Your task to perform on an android device: Open battery settings Image 0: 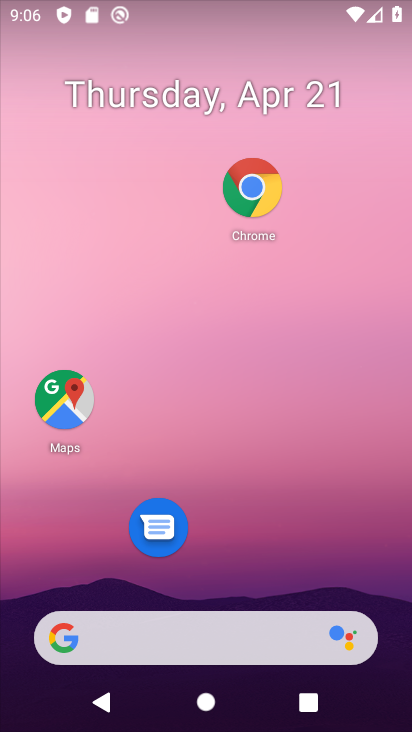
Step 0: drag from (286, 549) to (360, 101)
Your task to perform on an android device: Open battery settings Image 1: 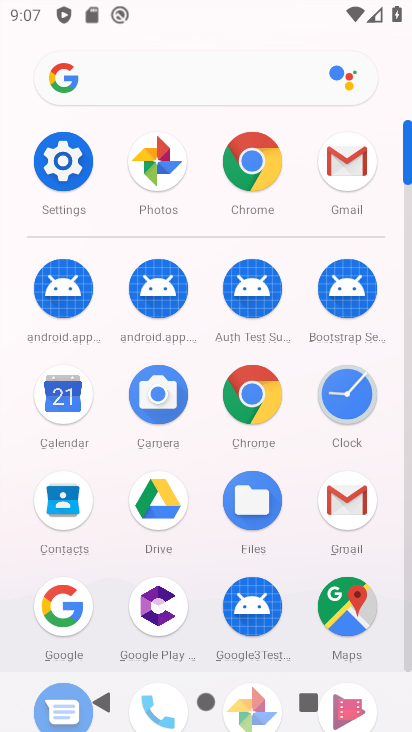
Step 1: click (63, 176)
Your task to perform on an android device: Open battery settings Image 2: 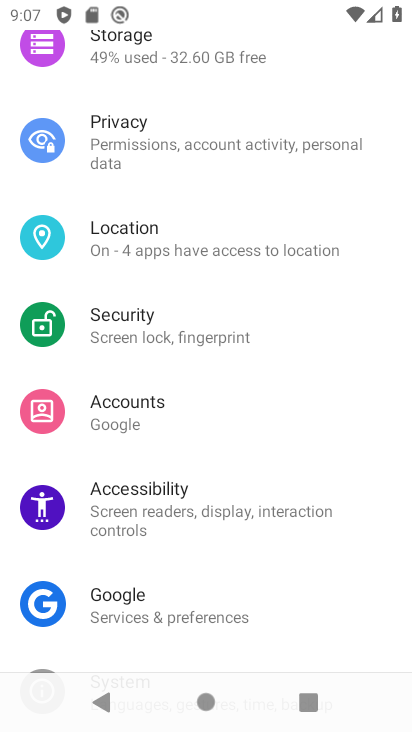
Step 2: drag from (197, 436) to (197, 145)
Your task to perform on an android device: Open battery settings Image 3: 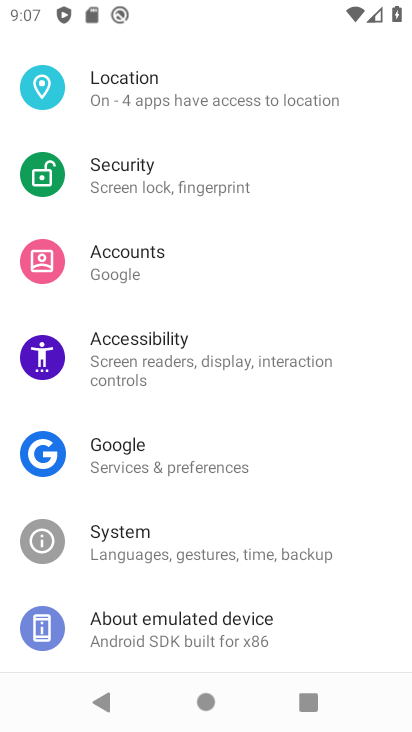
Step 3: drag from (220, 359) to (192, 710)
Your task to perform on an android device: Open battery settings Image 4: 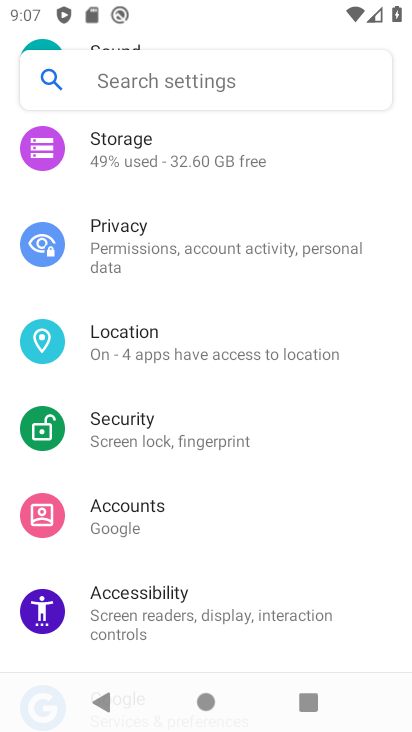
Step 4: drag from (188, 277) to (183, 585)
Your task to perform on an android device: Open battery settings Image 5: 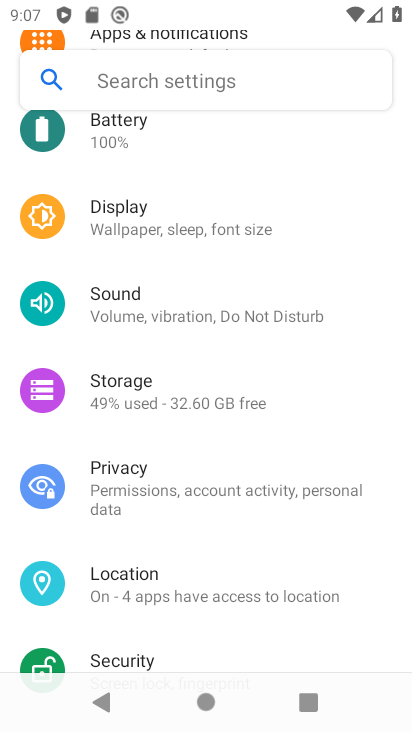
Step 5: drag from (202, 268) to (184, 536)
Your task to perform on an android device: Open battery settings Image 6: 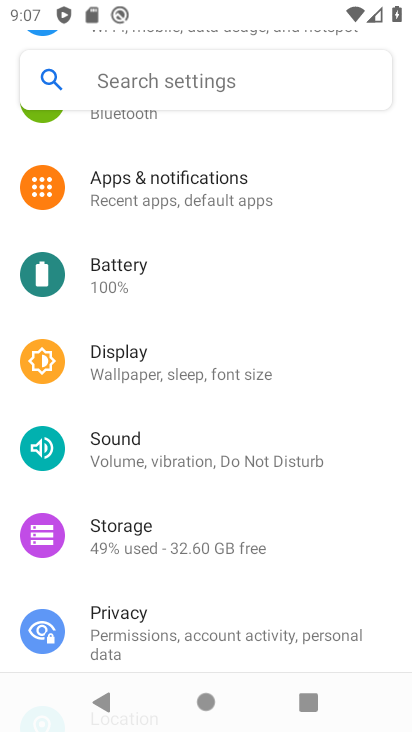
Step 6: click (210, 268)
Your task to perform on an android device: Open battery settings Image 7: 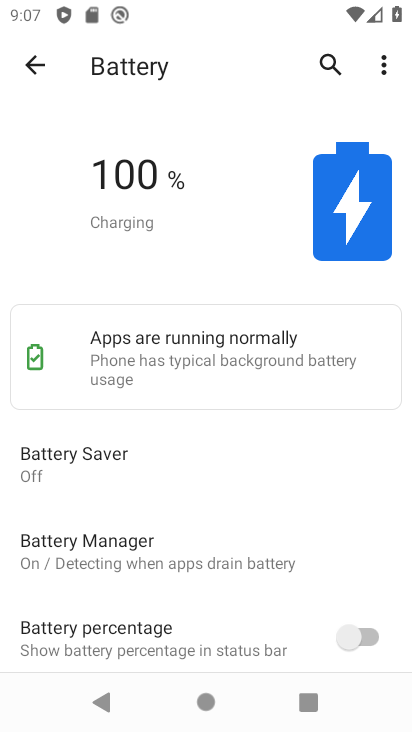
Step 7: task complete